Your task to perform on an android device: turn on bluetooth scan Image 0: 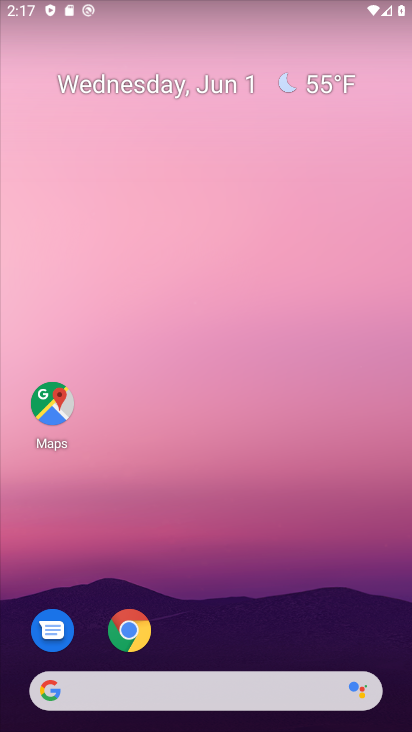
Step 0: drag from (186, 662) to (247, 195)
Your task to perform on an android device: turn on bluetooth scan Image 1: 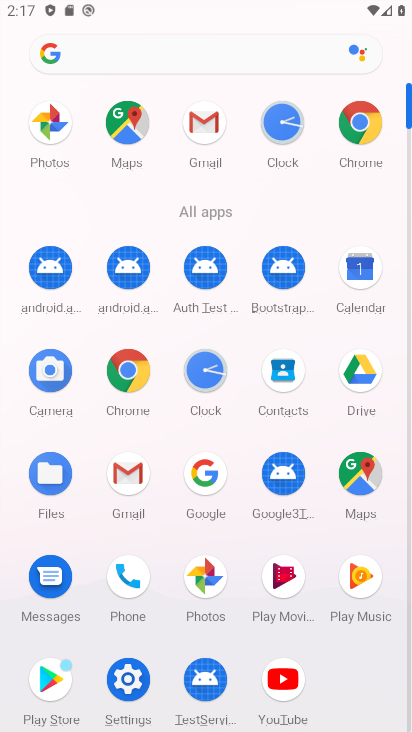
Step 1: click (117, 688)
Your task to perform on an android device: turn on bluetooth scan Image 2: 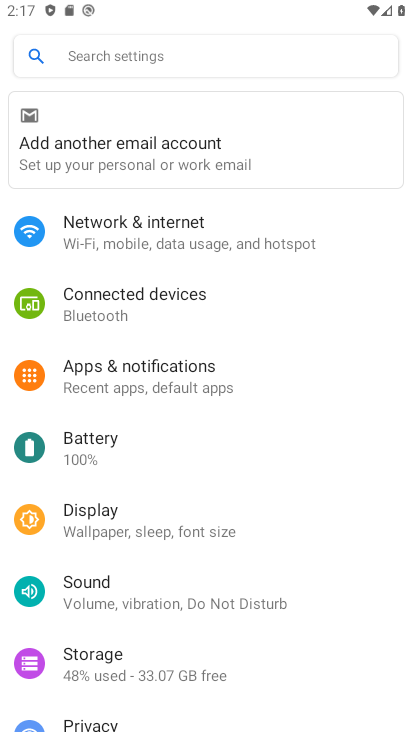
Step 2: click (215, 292)
Your task to perform on an android device: turn on bluetooth scan Image 3: 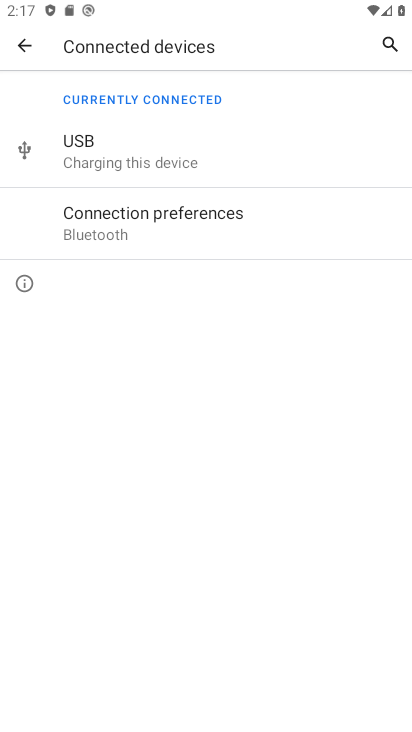
Step 3: click (219, 203)
Your task to perform on an android device: turn on bluetooth scan Image 4: 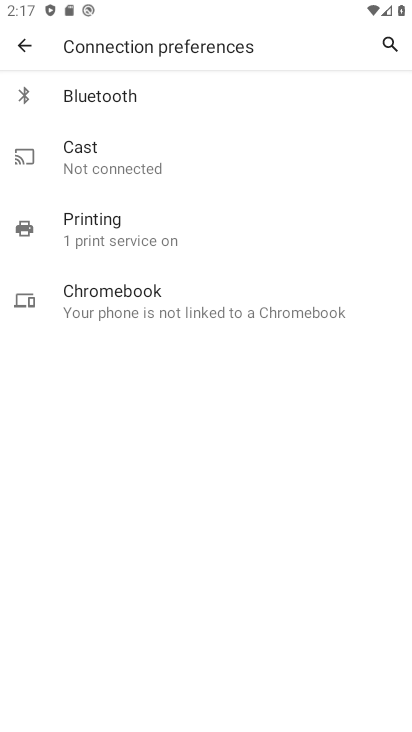
Step 4: click (221, 95)
Your task to perform on an android device: turn on bluetooth scan Image 5: 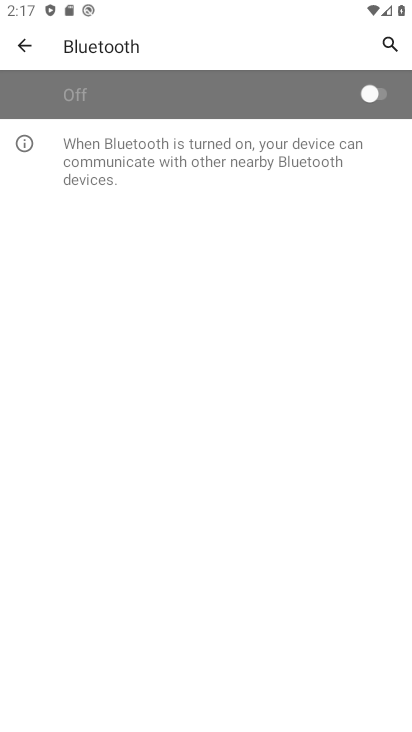
Step 5: click (371, 100)
Your task to perform on an android device: turn on bluetooth scan Image 6: 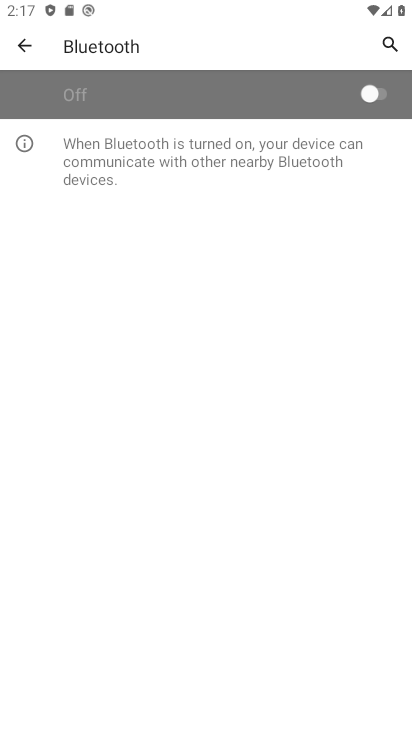
Step 6: task complete